Your task to perform on an android device: Clear the shopping cart on newegg.com. Add "bose soundlink" to the cart on newegg.com Image 0: 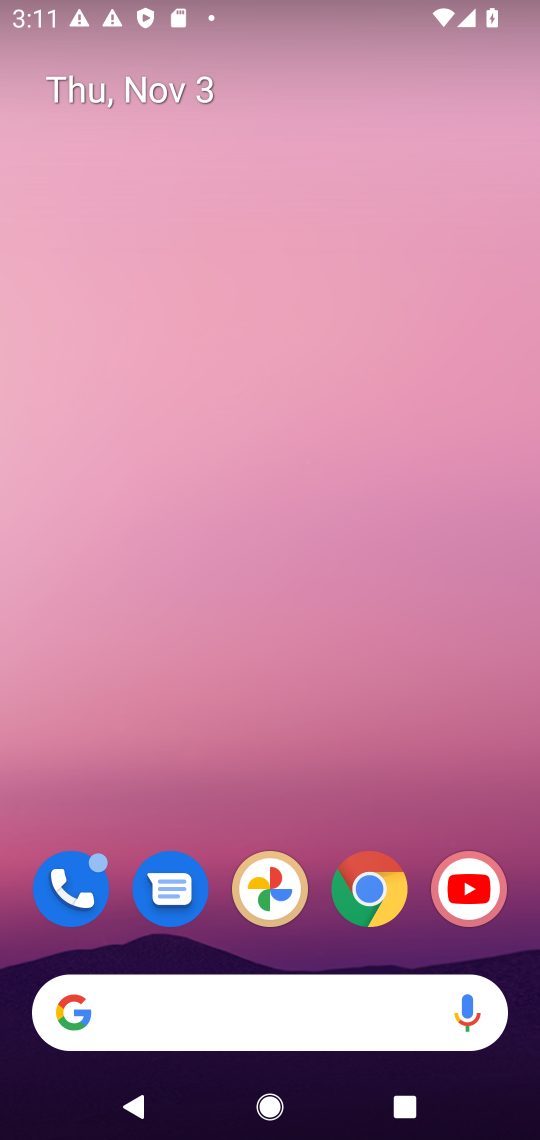
Step 0: click (372, 892)
Your task to perform on an android device: Clear the shopping cart on newegg.com. Add "bose soundlink" to the cart on newegg.com Image 1: 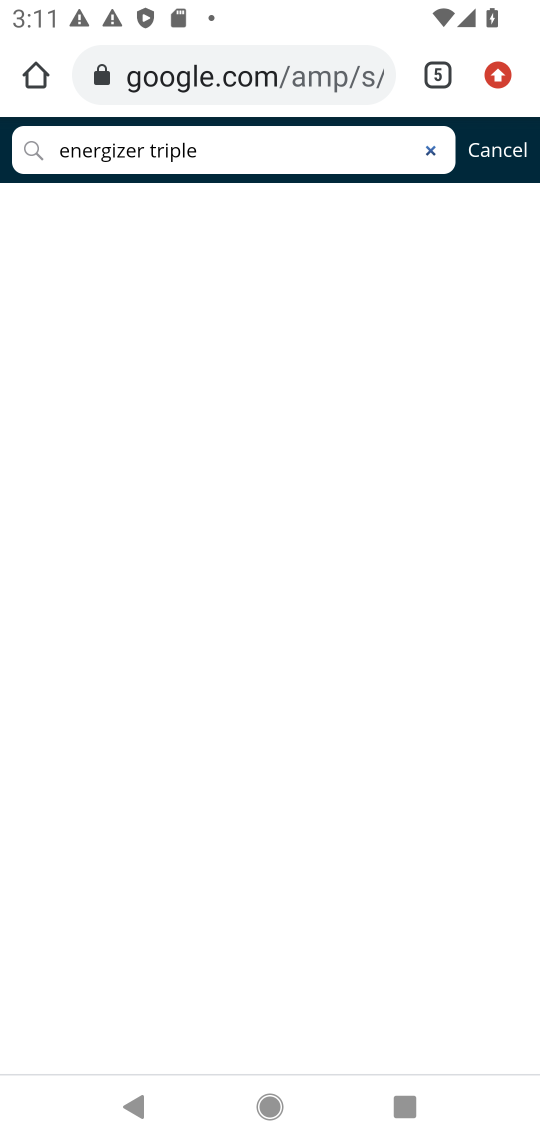
Step 1: click (483, 154)
Your task to perform on an android device: Clear the shopping cart on newegg.com. Add "bose soundlink" to the cart on newegg.com Image 2: 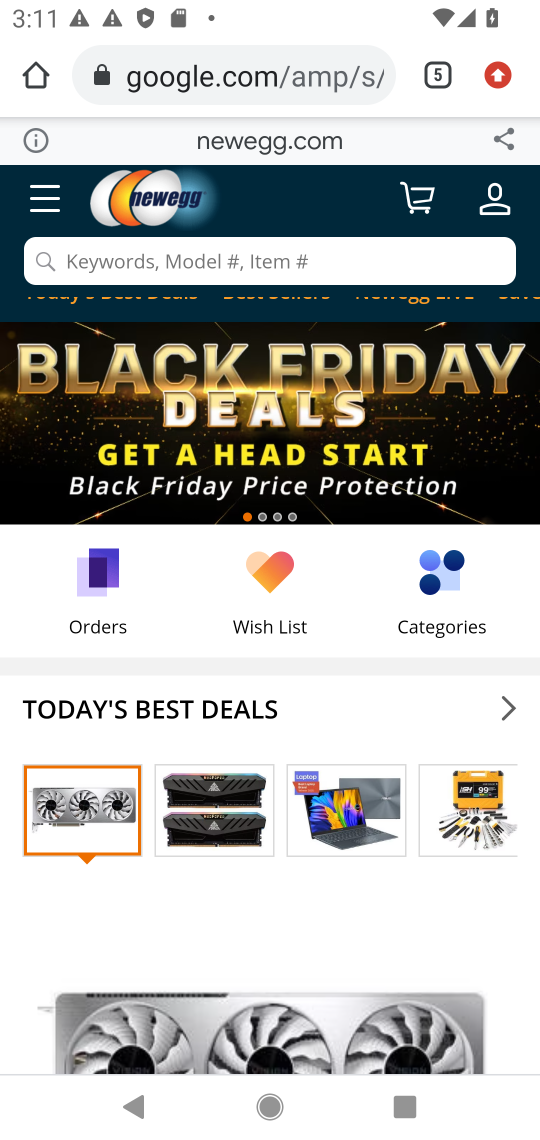
Step 2: click (404, 200)
Your task to perform on an android device: Clear the shopping cart on newegg.com. Add "bose soundlink" to the cart on newegg.com Image 3: 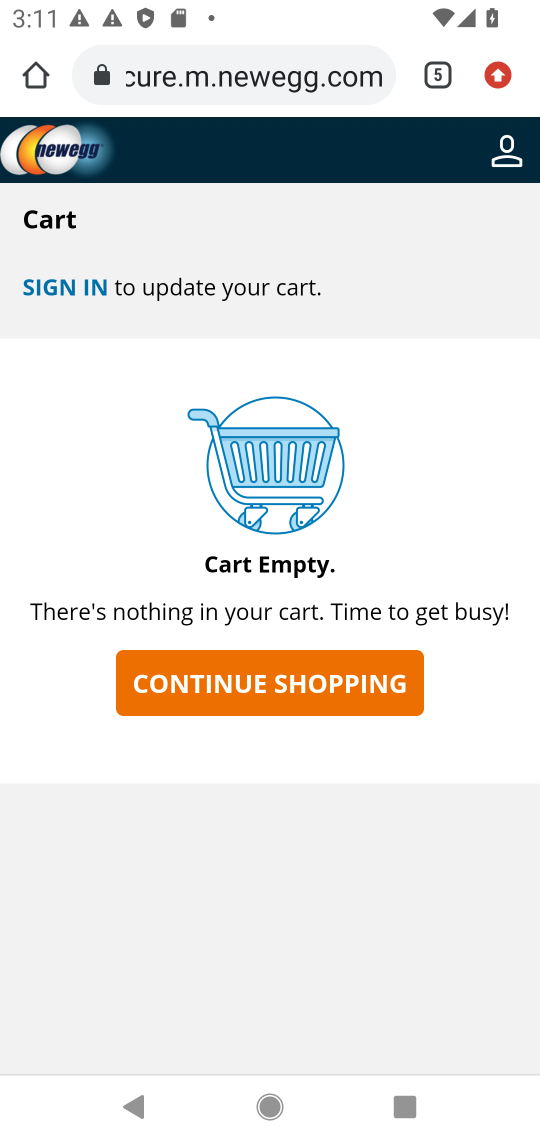
Step 3: click (299, 694)
Your task to perform on an android device: Clear the shopping cart on newegg.com. Add "bose soundlink" to the cart on newegg.com Image 4: 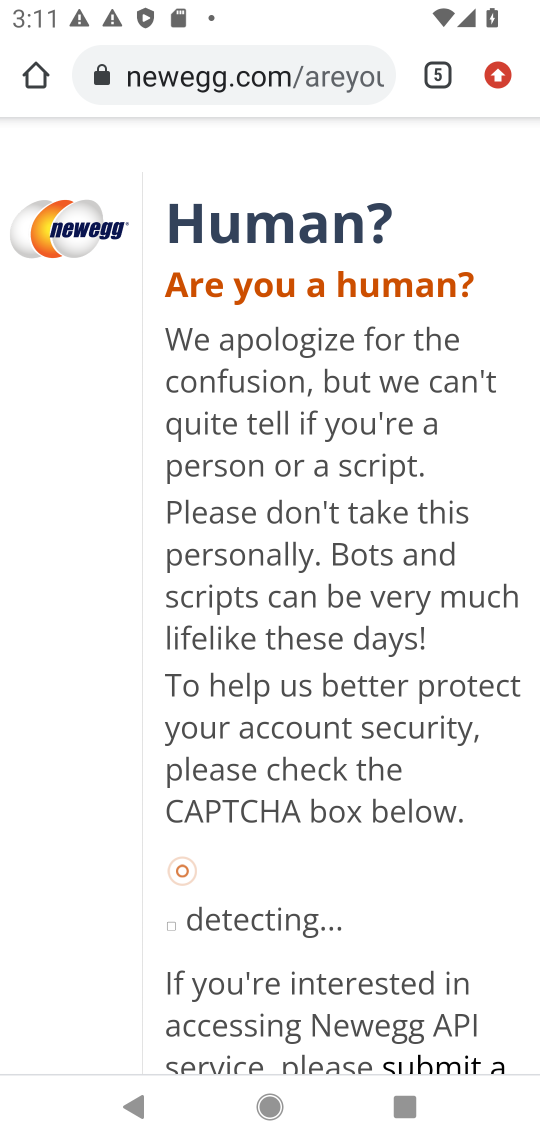
Step 4: drag from (316, 922) to (363, 188)
Your task to perform on an android device: Clear the shopping cart on newegg.com. Add "bose soundlink" to the cart on newegg.com Image 5: 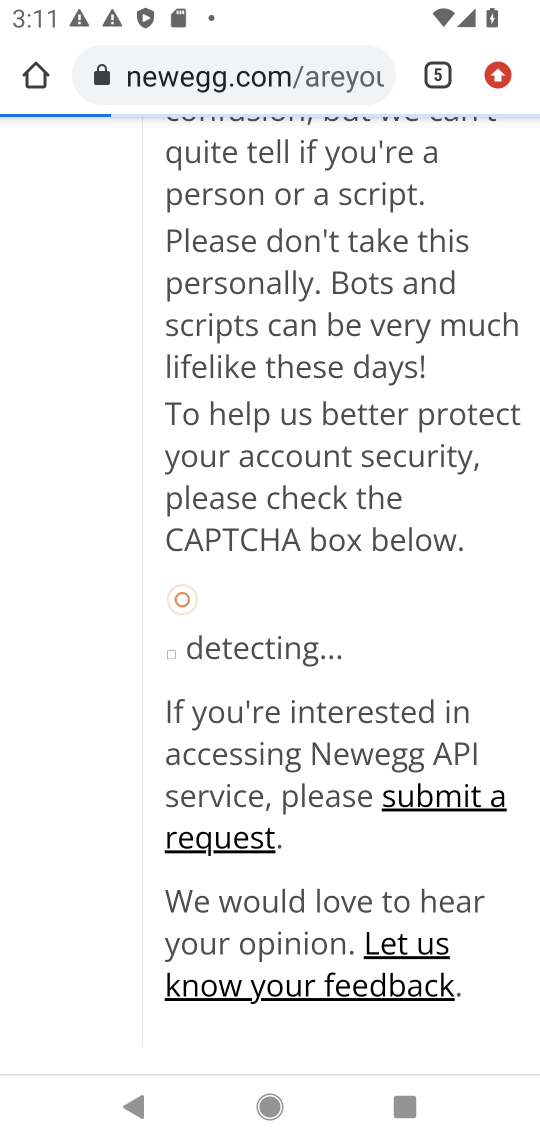
Step 5: drag from (326, 927) to (372, 295)
Your task to perform on an android device: Clear the shopping cart on newegg.com. Add "bose soundlink" to the cart on newegg.com Image 6: 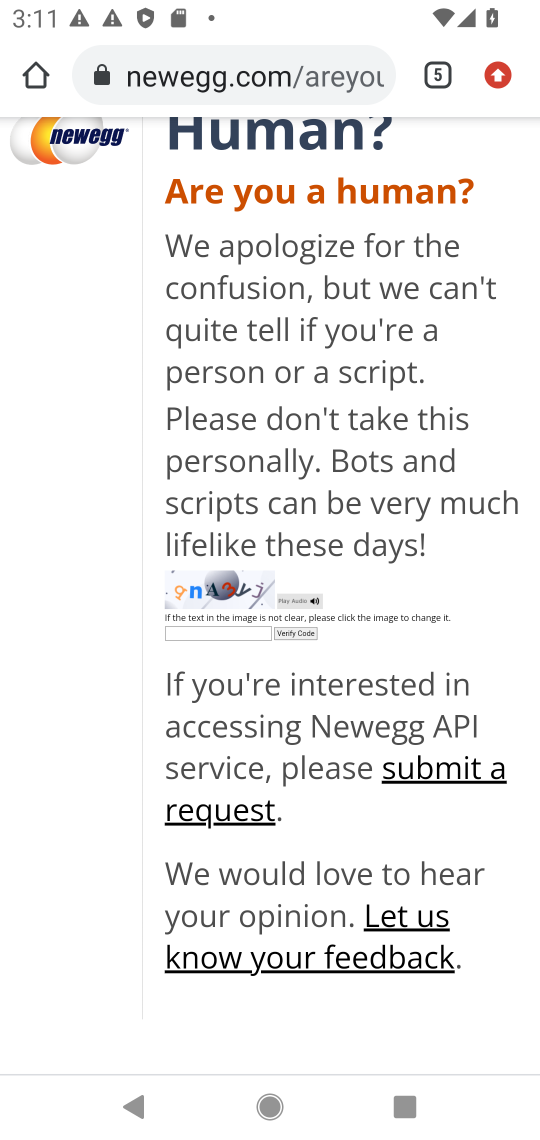
Step 6: drag from (353, 301) to (372, 1135)
Your task to perform on an android device: Clear the shopping cart on newegg.com. Add "bose soundlink" to the cart on newegg.com Image 7: 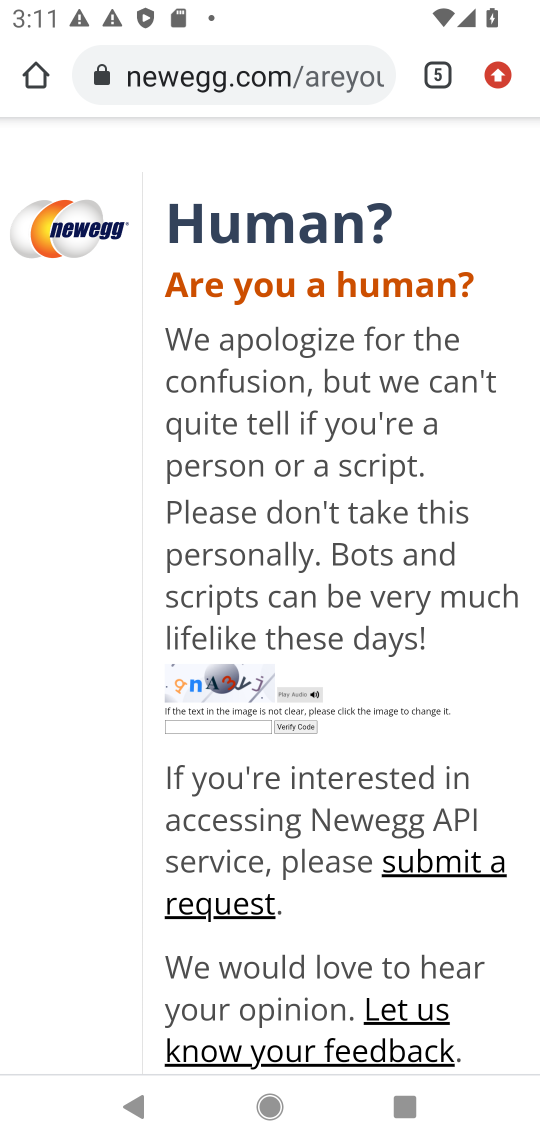
Step 7: press back button
Your task to perform on an android device: Clear the shopping cart on newegg.com. Add "bose soundlink" to the cart on newegg.com Image 8: 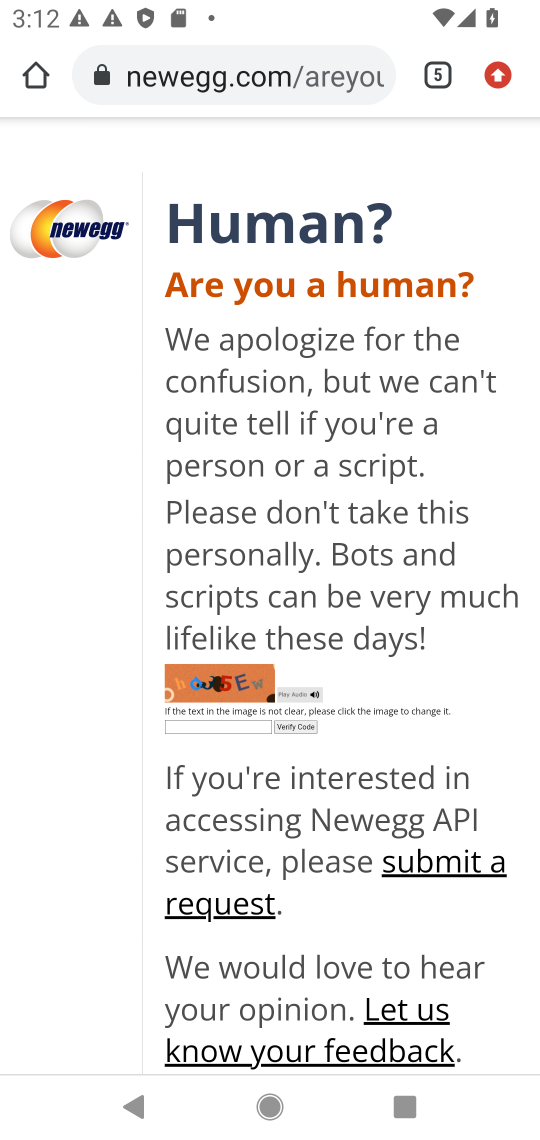
Step 8: press back button
Your task to perform on an android device: Clear the shopping cart on newegg.com. Add "bose soundlink" to the cart on newegg.com Image 9: 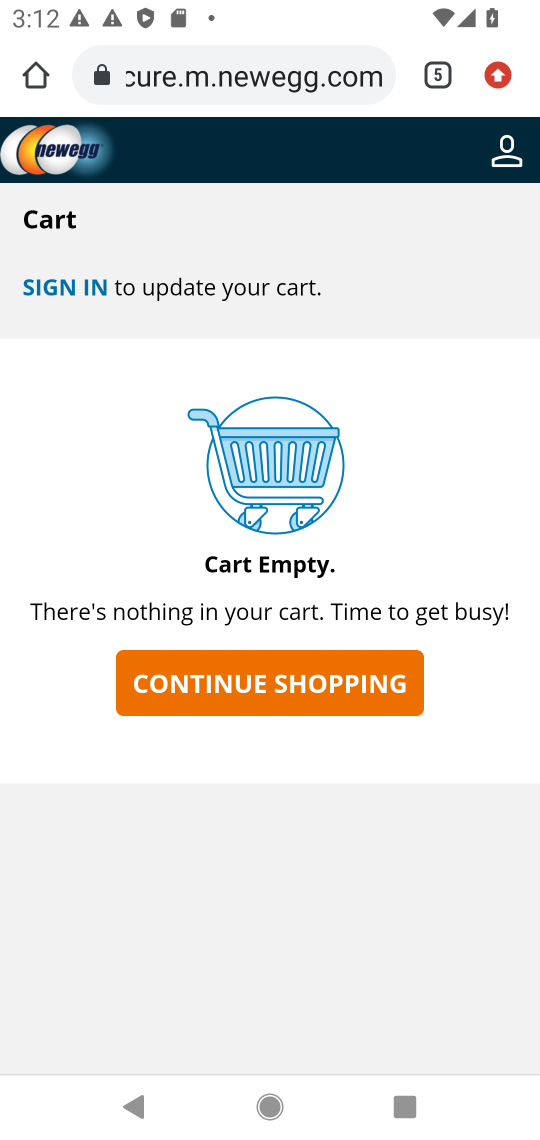
Step 9: press back button
Your task to perform on an android device: Clear the shopping cart on newegg.com. Add "bose soundlink" to the cart on newegg.com Image 10: 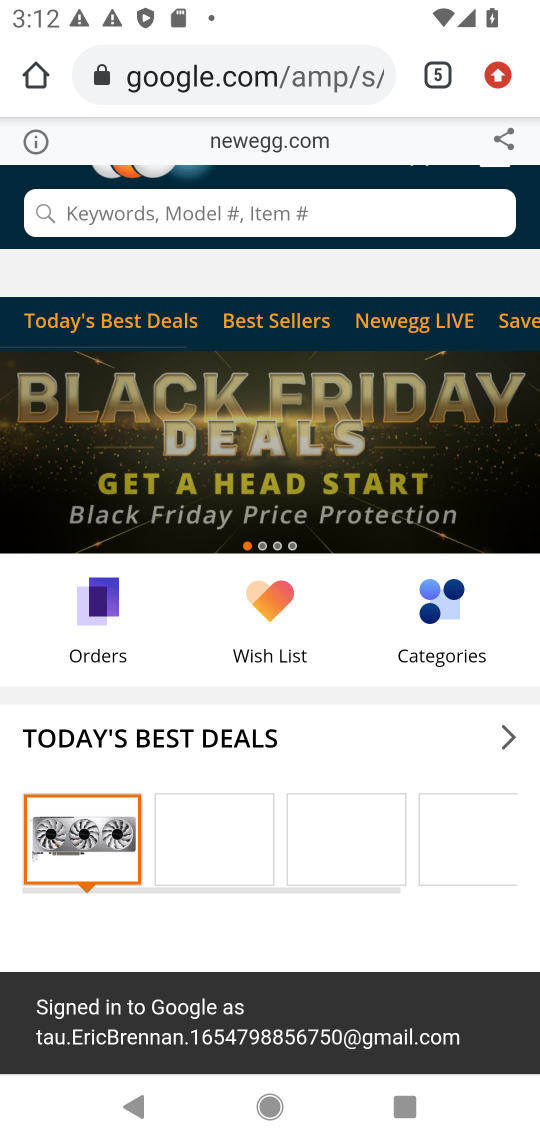
Step 10: click (327, 213)
Your task to perform on an android device: Clear the shopping cart on newegg.com. Add "bose soundlink" to the cart on newegg.com Image 11: 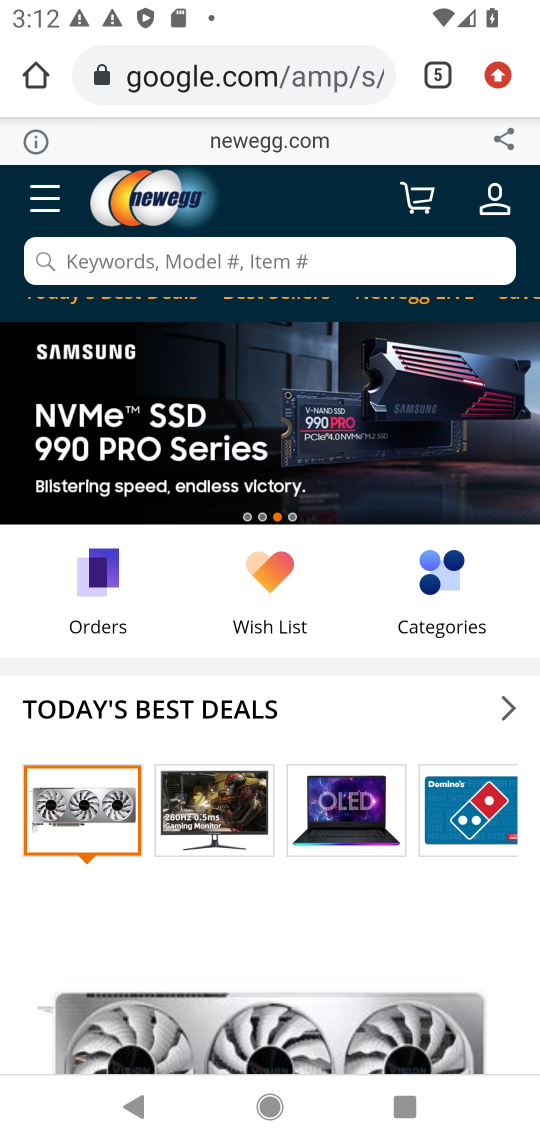
Step 11: click (188, 255)
Your task to perform on an android device: Clear the shopping cart on newegg.com. Add "bose soundlink" to the cart on newegg.com Image 12: 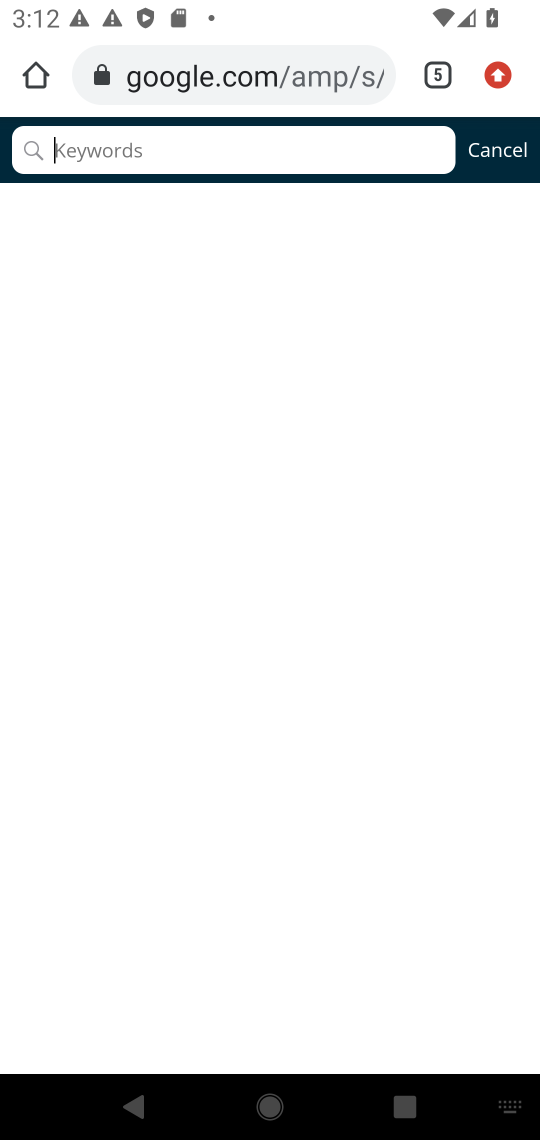
Step 12: type "bose soundlink"
Your task to perform on an android device: Clear the shopping cart on newegg.com. Add "bose soundlink" to the cart on newegg.com Image 13: 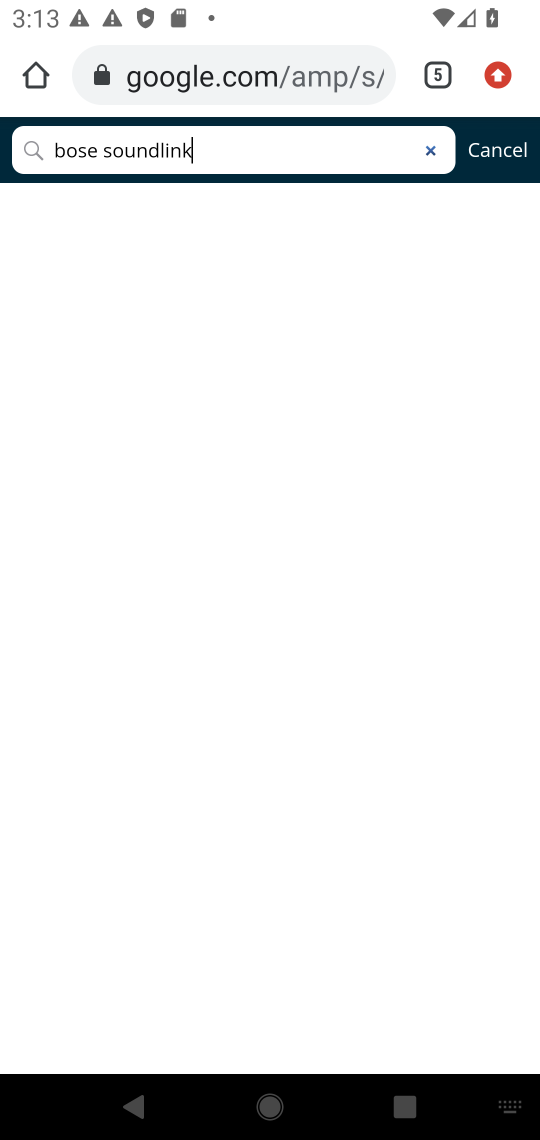
Step 13: task complete